Your task to perform on an android device: Open Google Image 0: 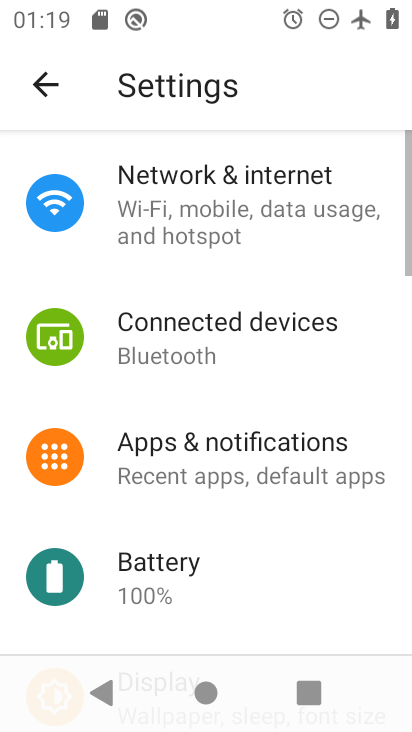
Step 0: press home button
Your task to perform on an android device: Open Google Image 1: 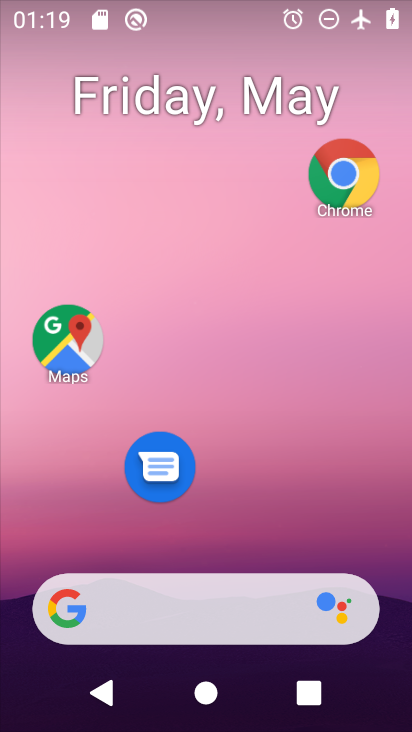
Step 1: drag from (280, 397) to (282, 161)
Your task to perform on an android device: Open Google Image 2: 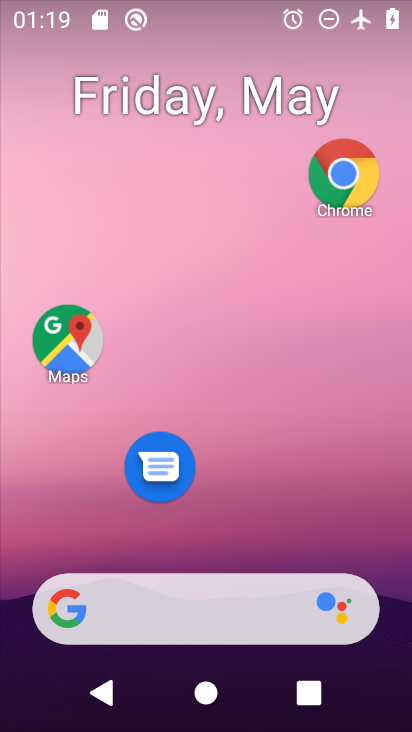
Step 2: drag from (208, 464) to (249, 243)
Your task to perform on an android device: Open Google Image 3: 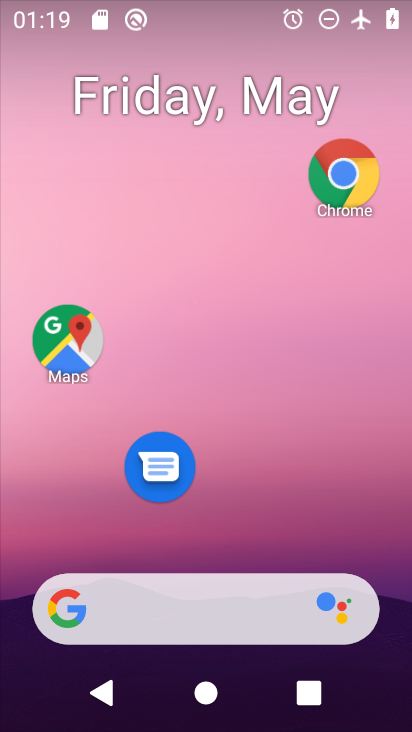
Step 3: drag from (207, 532) to (233, 221)
Your task to perform on an android device: Open Google Image 4: 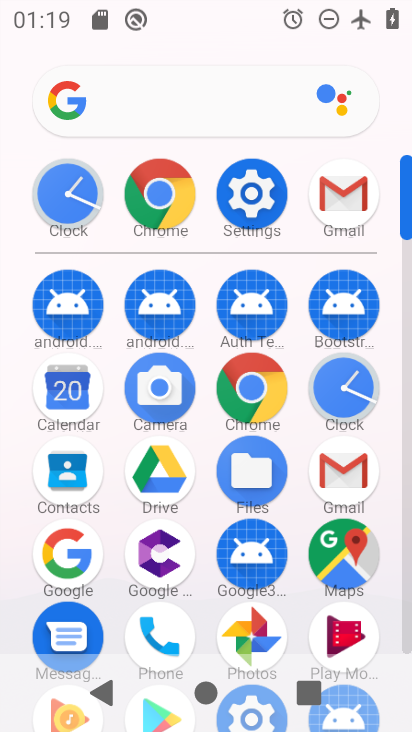
Step 4: click (75, 536)
Your task to perform on an android device: Open Google Image 5: 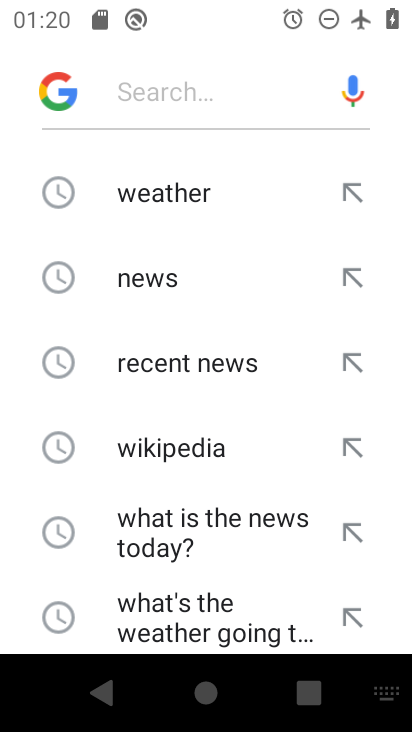
Step 5: task complete